Your task to perform on an android device: Go to Reddit.com Image 0: 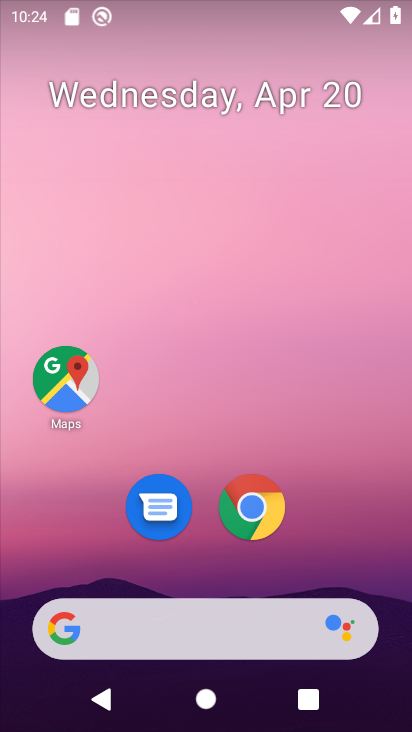
Step 0: drag from (334, 495) to (270, 41)
Your task to perform on an android device: Go to Reddit.com Image 1: 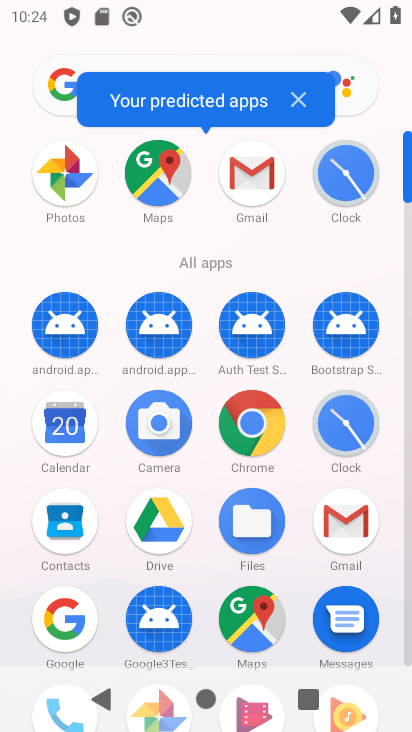
Step 1: click (261, 458)
Your task to perform on an android device: Go to Reddit.com Image 2: 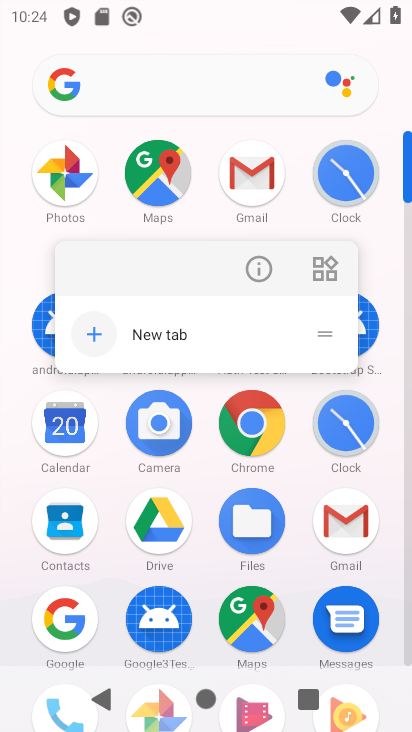
Step 2: click (250, 464)
Your task to perform on an android device: Go to Reddit.com Image 3: 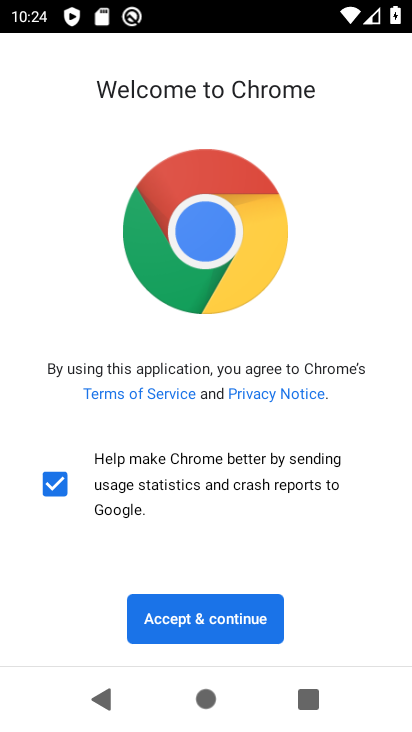
Step 3: click (191, 617)
Your task to perform on an android device: Go to Reddit.com Image 4: 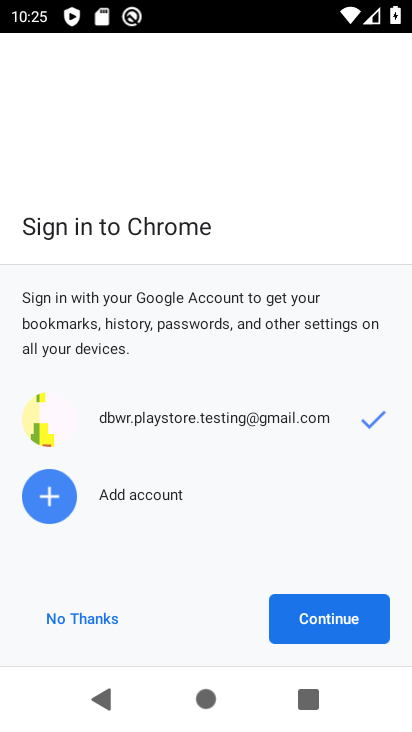
Step 4: click (323, 622)
Your task to perform on an android device: Go to Reddit.com Image 5: 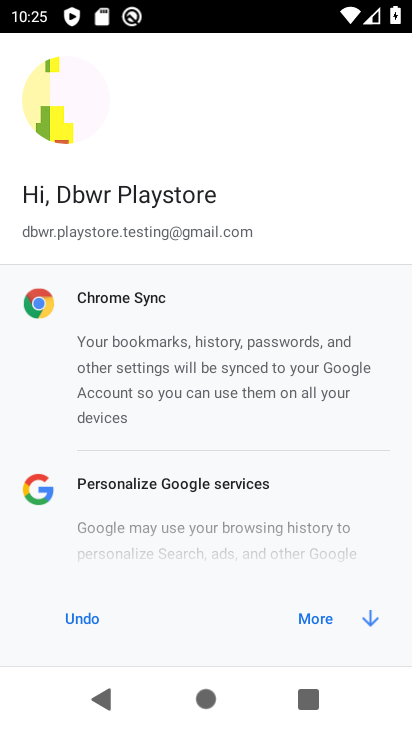
Step 5: click (316, 623)
Your task to perform on an android device: Go to Reddit.com Image 6: 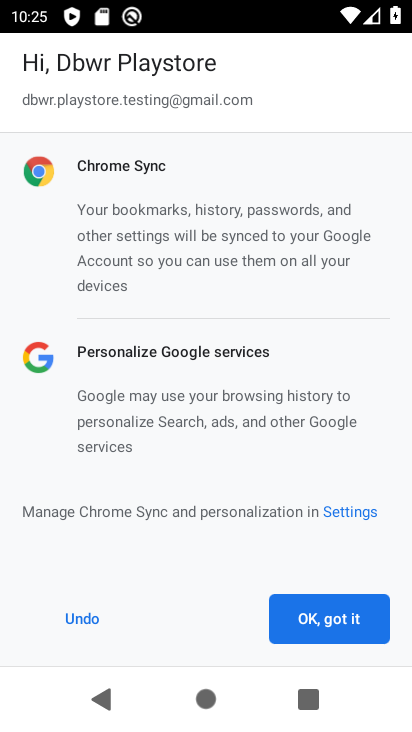
Step 6: click (315, 622)
Your task to perform on an android device: Go to Reddit.com Image 7: 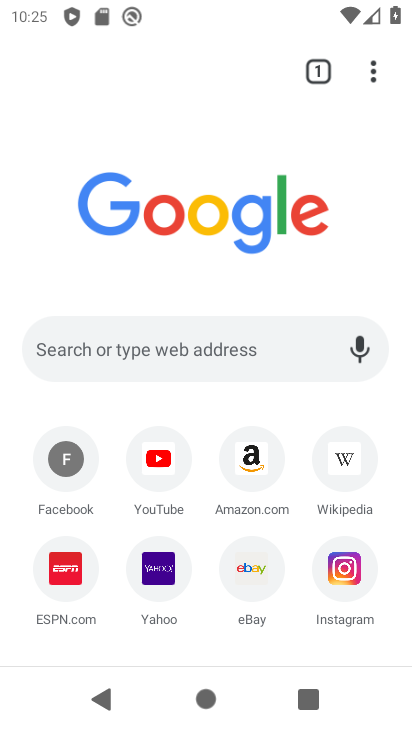
Step 7: click (166, 357)
Your task to perform on an android device: Go to Reddit.com Image 8: 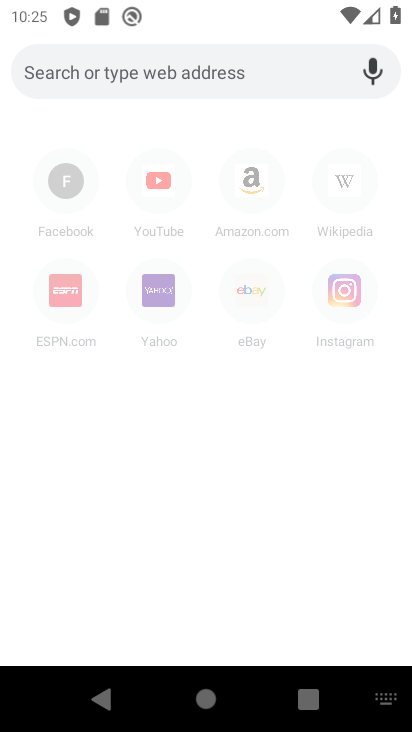
Step 8: click (119, 73)
Your task to perform on an android device: Go to Reddit.com Image 9: 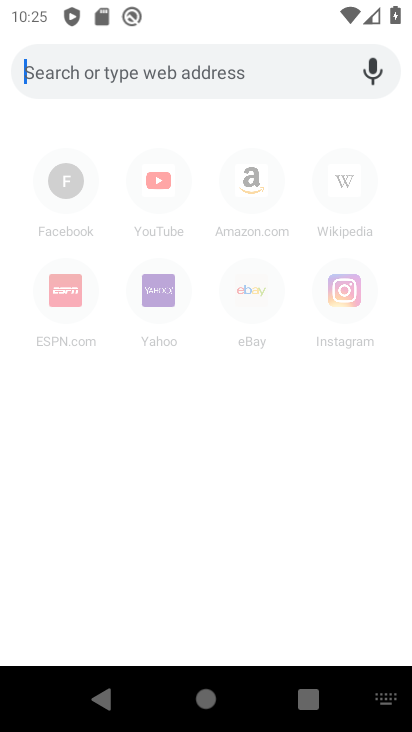
Step 9: type "www.reddit.com"
Your task to perform on an android device: Go to Reddit.com Image 10: 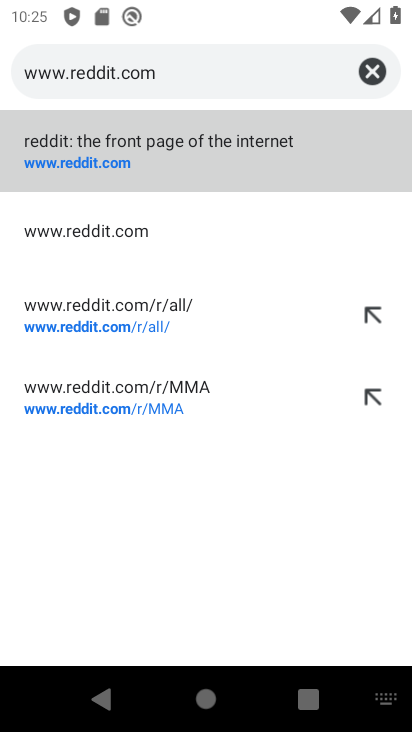
Step 10: click (73, 135)
Your task to perform on an android device: Go to Reddit.com Image 11: 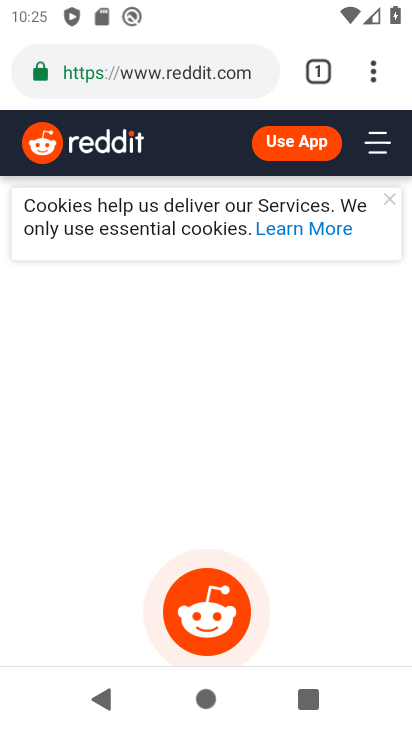
Step 11: task complete